Your task to perform on an android device: Go to CNN.com Image 0: 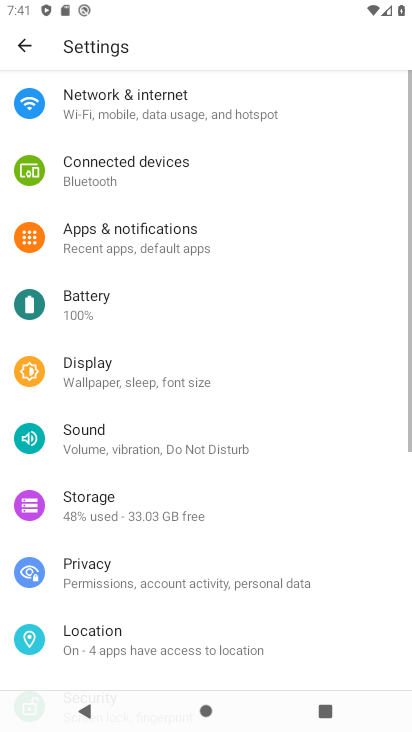
Step 0: press home button
Your task to perform on an android device: Go to CNN.com Image 1: 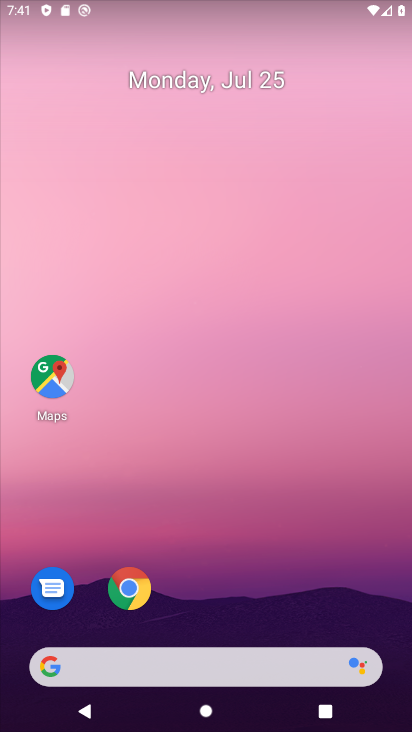
Step 1: drag from (195, 650) to (195, 164)
Your task to perform on an android device: Go to CNN.com Image 2: 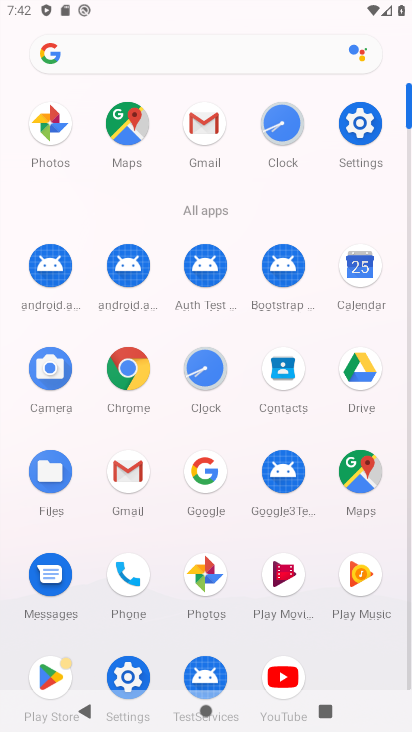
Step 2: click (204, 479)
Your task to perform on an android device: Go to CNN.com Image 3: 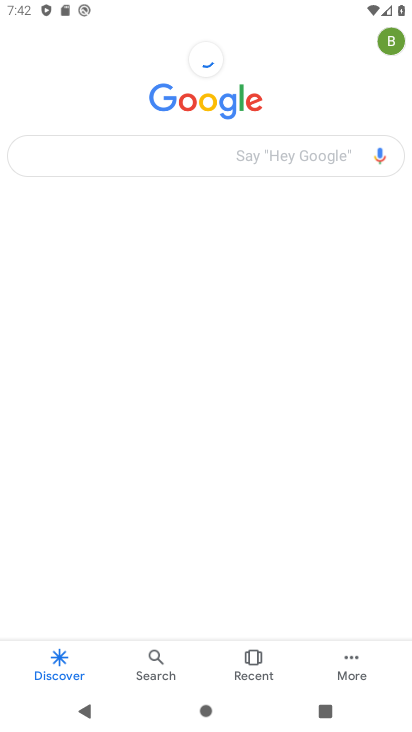
Step 3: drag from (187, 159) to (126, 159)
Your task to perform on an android device: Go to CNN.com Image 4: 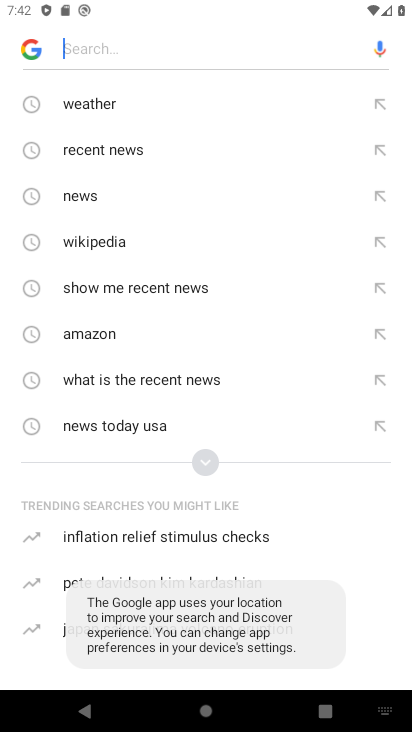
Step 4: click (209, 467)
Your task to perform on an android device: Go to CNN.com Image 5: 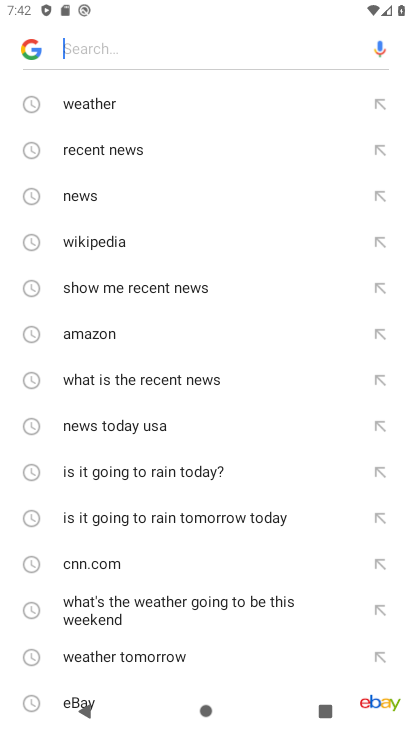
Step 5: click (87, 568)
Your task to perform on an android device: Go to CNN.com Image 6: 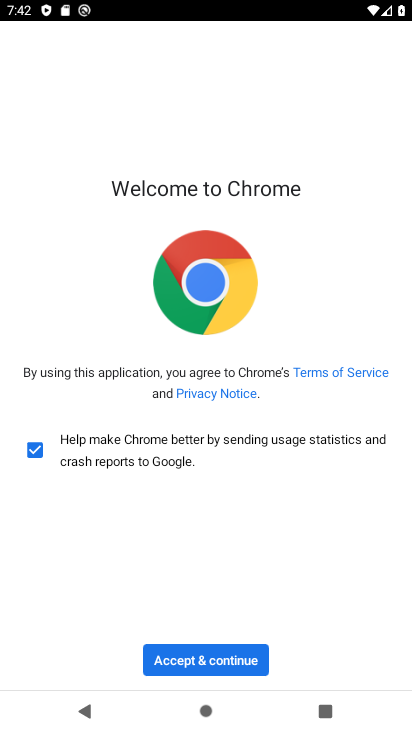
Step 6: click (235, 655)
Your task to perform on an android device: Go to CNN.com Image 7: 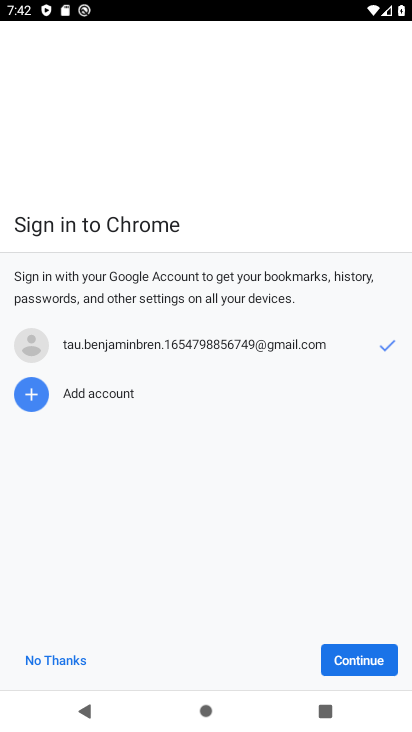
Step 7: click (381, 659)
Your task to perform on an android device: Go to CNN.com Image 8: 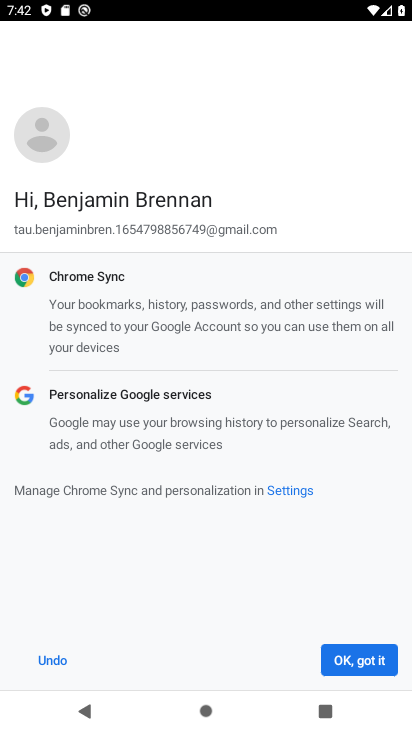
Step 8: click (380, 657)
Your task to perform on an android device: Go to CNN.com Image 9: 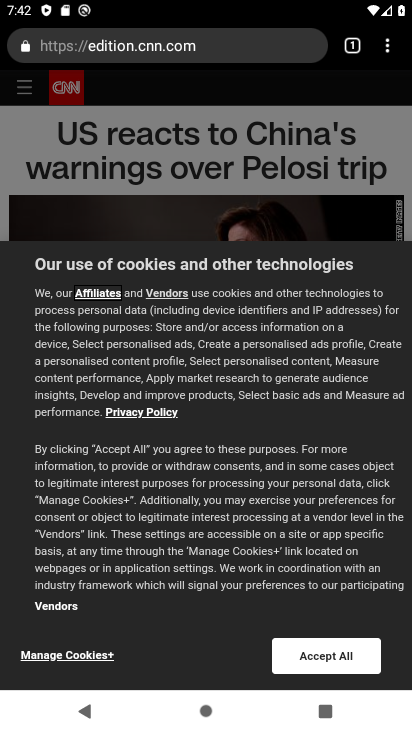
Step 9: task complete